Your task to perform on an android device: Open location settings Image 0: 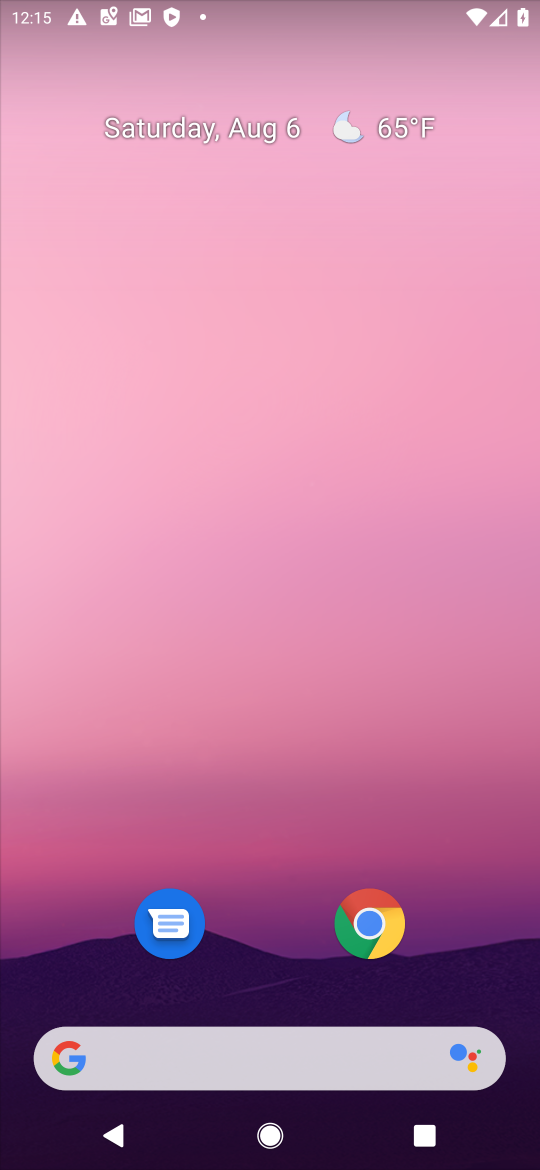
Step 0: drag from (241, 1051) to (227, 842)
Your task to perform on an android device: Open location settings Image 1: 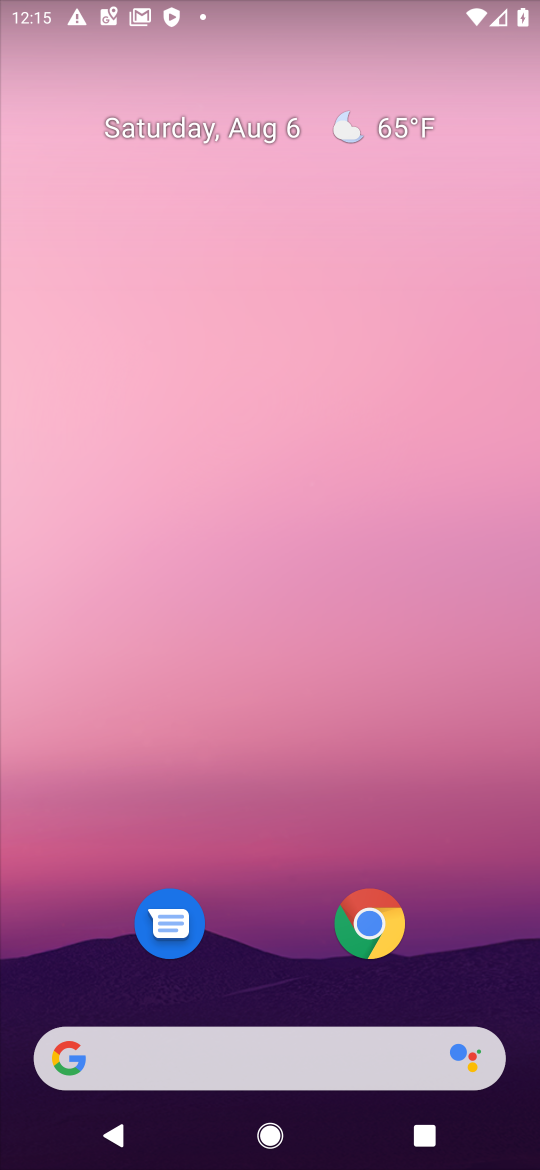
Step 1: drag from (267, 1052) to (247, 38)
Your task to perform on an android device: Open location settings Image 2: 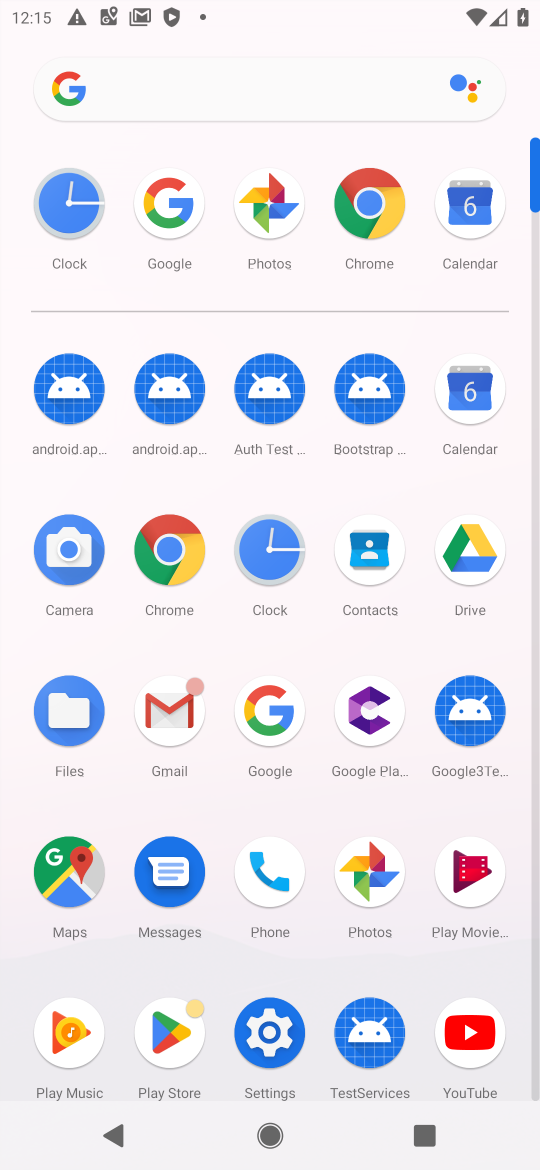
Step 2: click (259, 1026)
Your task to perform on an android device: Open location settings Image 3: 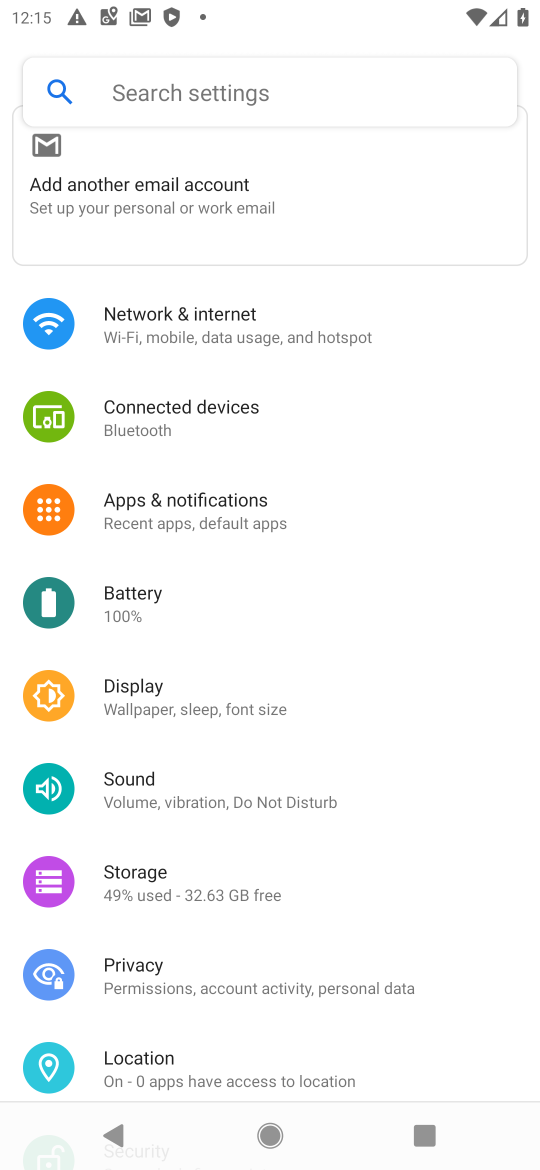
Step 3: click (197, 1051)
Your task to perform on an android device: Open location settings Image 4: 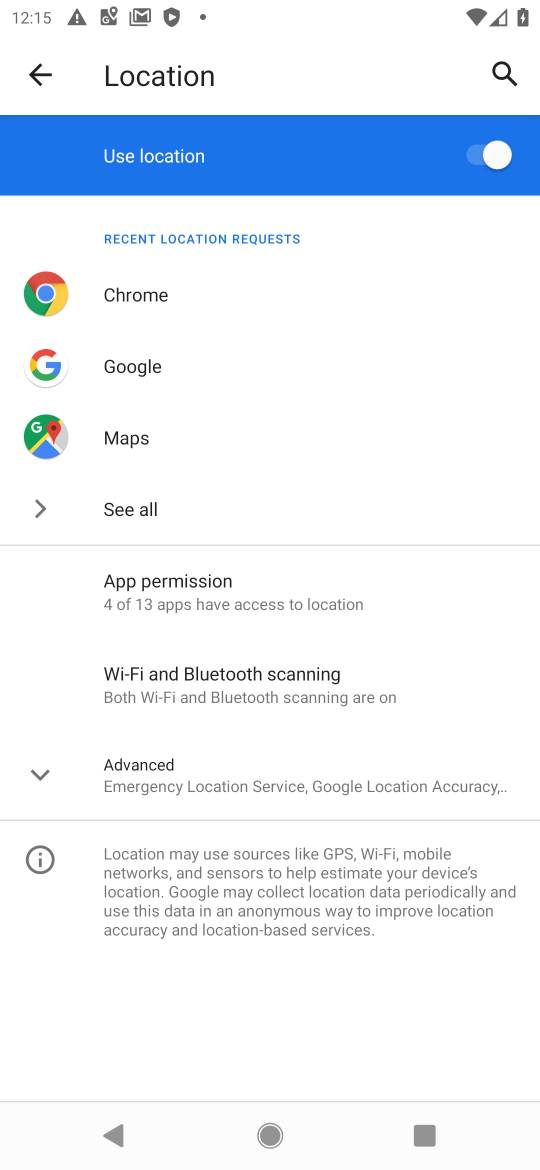
Step 4: task complete